Your task to perform on an android device: Go to wifi settings Image 0: 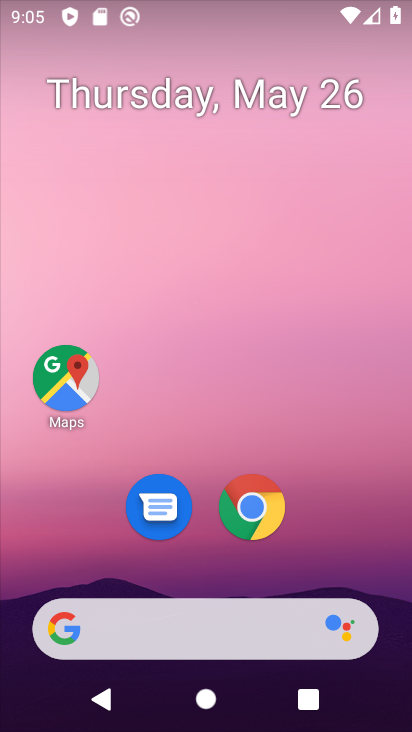
Step 0: drag from (373, 585) to (349, 166)
Your task to perform on an android device: Go to wifi settings Image 1: 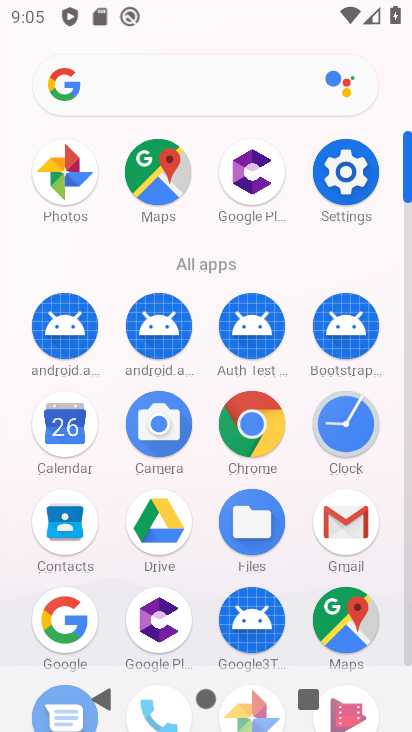
Step 1: click (350, 182)
Your task to perform on an android device: Go to wifi settings Image 2: 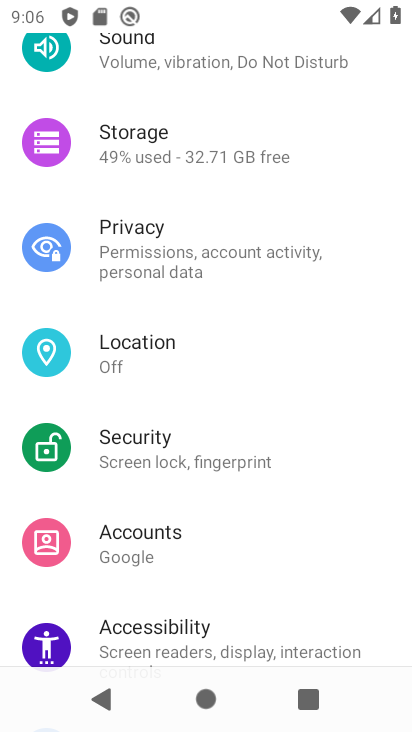
Step 2: drag from (340, 247) to (344, 359)
Your task to perform on an android device: Go to wifi settings Image 3: 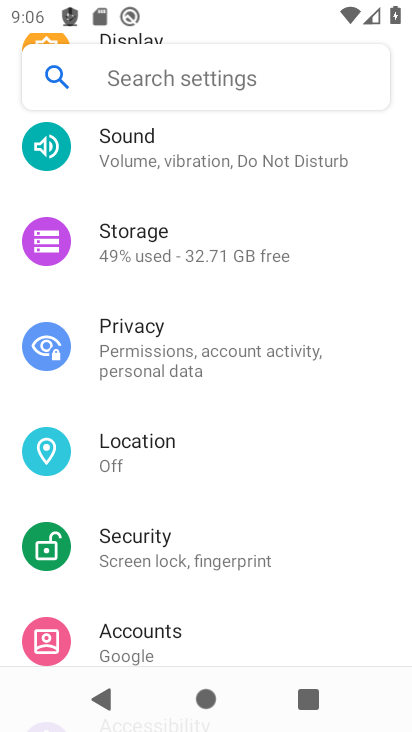
Step 3: drag from (343, 263) to (367, 378)
Your task to perform on an android device: Go to wifi settings Image 4: 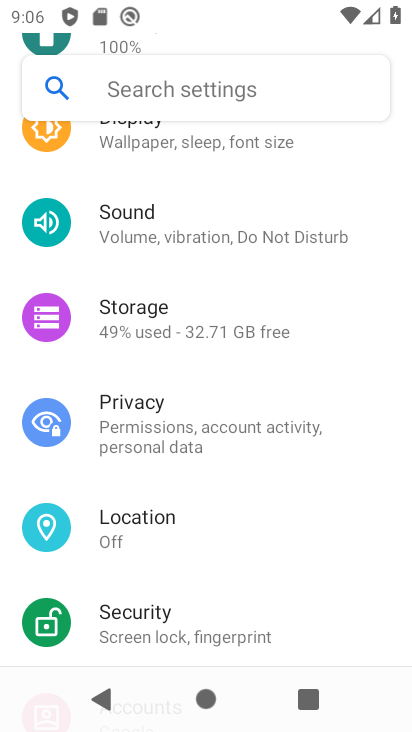
Step 4: drag from (373, 219) to (376, 341)
Your task to perform on an android device: Go to wifi settings Image 5: 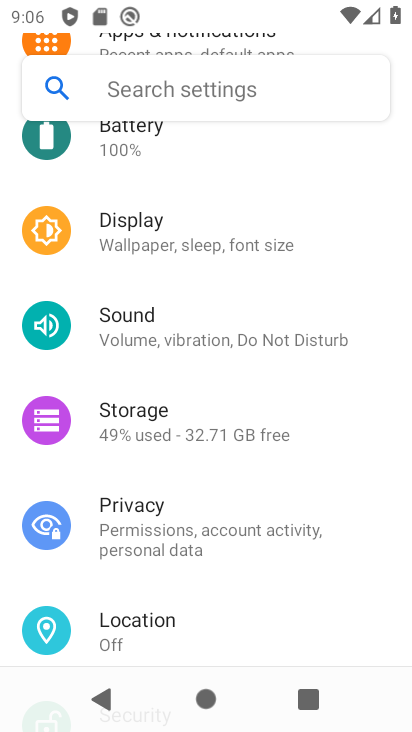
Step 5: drag from (380, 230) to (379, 351)
Your task to perform on an android device: Go to wifi settings Image 6: 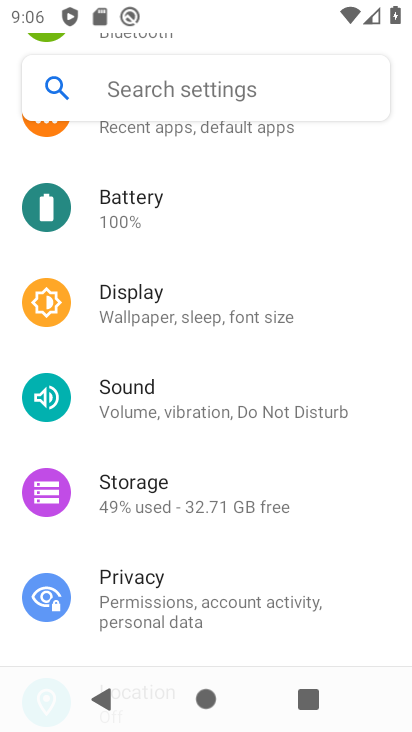
Step 6: drag from (361, 202) to (372, 304)
Your task to perform on an android device: Go to wifi settings Image 7: 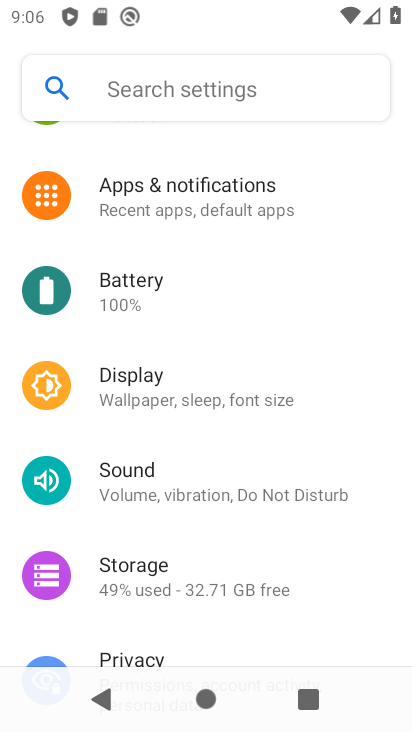
Step 7: drag from (352, 172) to (349, 286)
Your task to perform on an android device: Go to wifi settings Image 8: 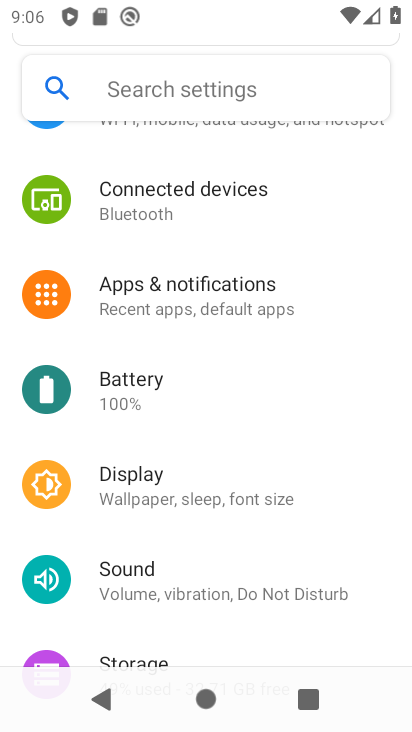
Step 8: drag from (340, 182) to (353, 331)
Your task to perform on an android device: Go to wifi settings Image 9: 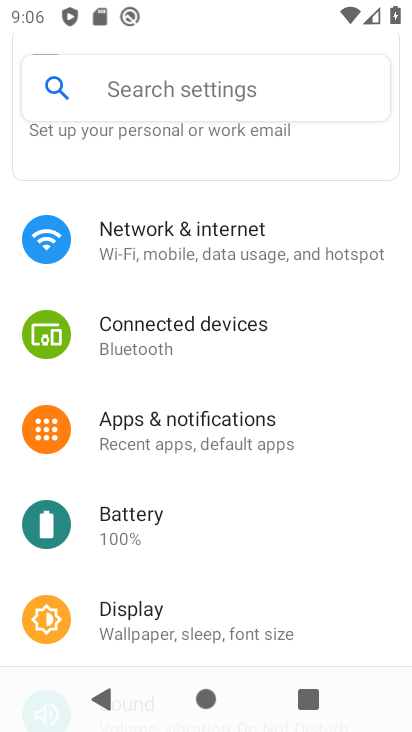
Step 9: click (318, 256)
Your task to perform on an android device: Go to wifi settings Image 10: 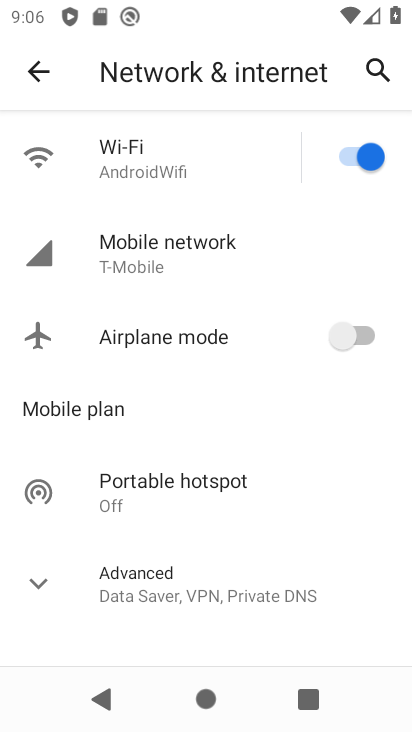
Step 10: click (170, 151)
Your task to perform on an android device: Go to wifi settings Image 11: 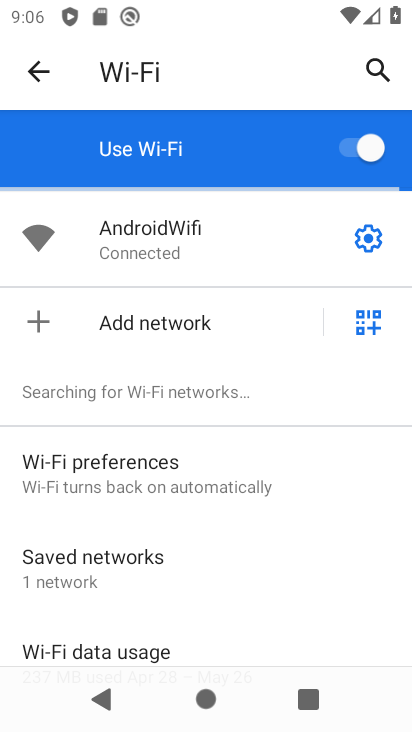
Step 11: task complete